Your task to perform on an android device: open app "Nova Launcher" Image 0: 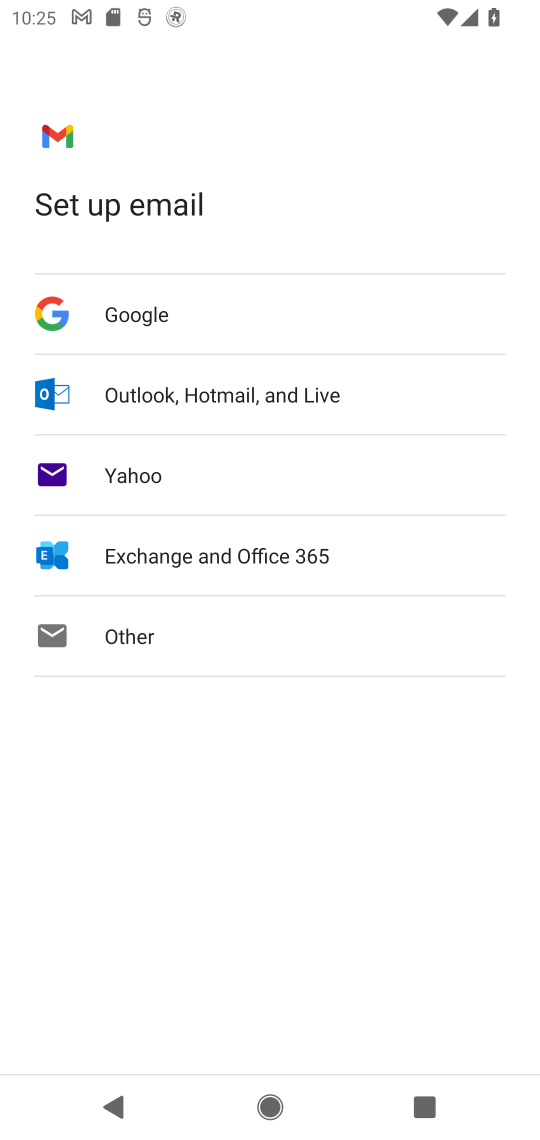
Step 0: press home button
Your task to perform on an android device: open app "Nova Launcher" Image 1: 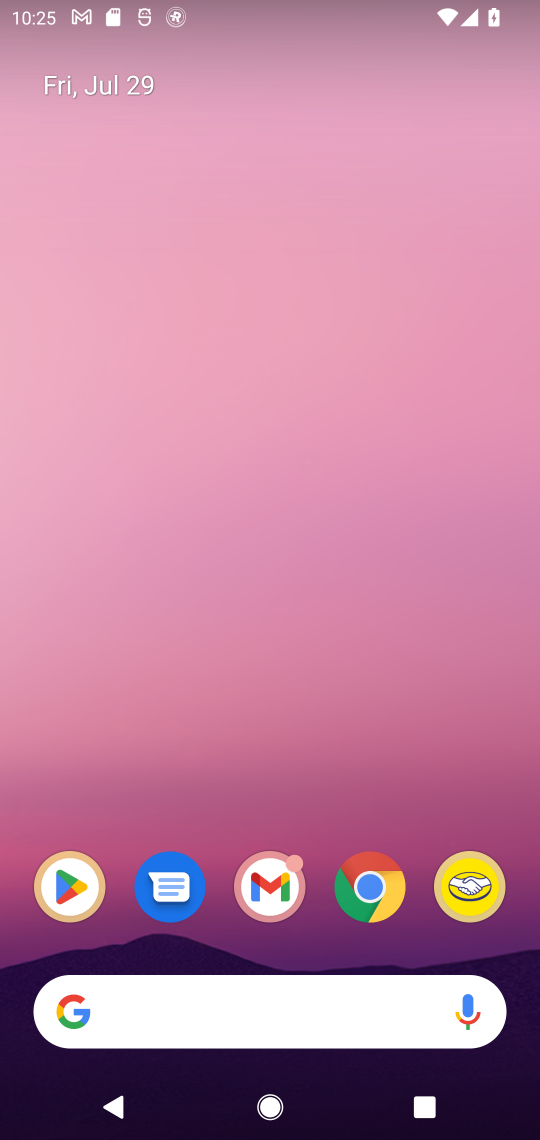
Step 1: click (72, 899)
Your task to perform on an android device: open app "Nova Launcher" Image 2: 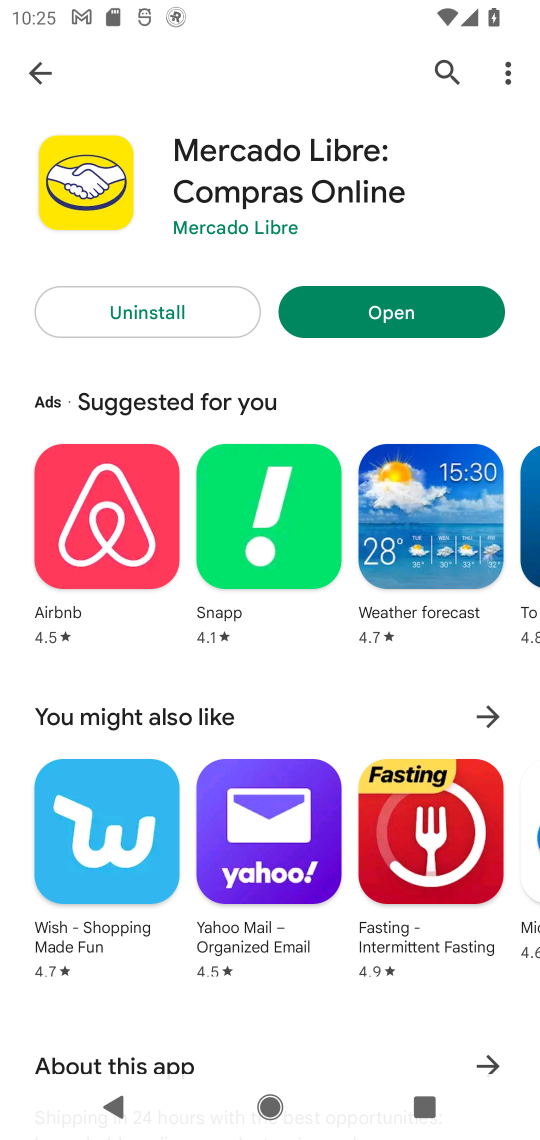
Step 2: click (444, 83)
Your task to perform on an android device: open app "Nova Launcher" Image 3: 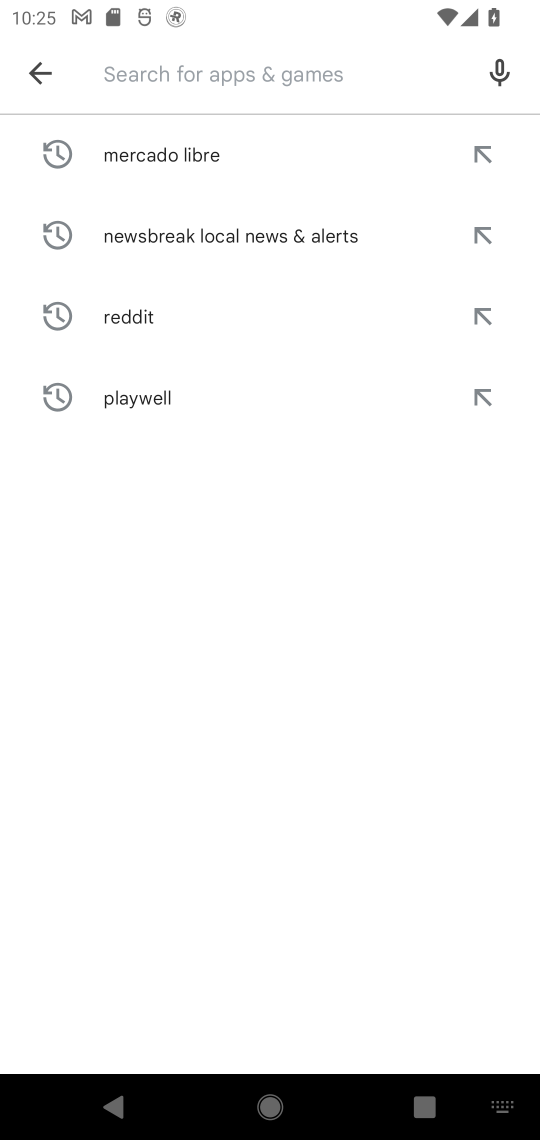
Step 3: type "nova launcher"
Your task to perform on an android device: open app "Nova Launcher" Image 4: 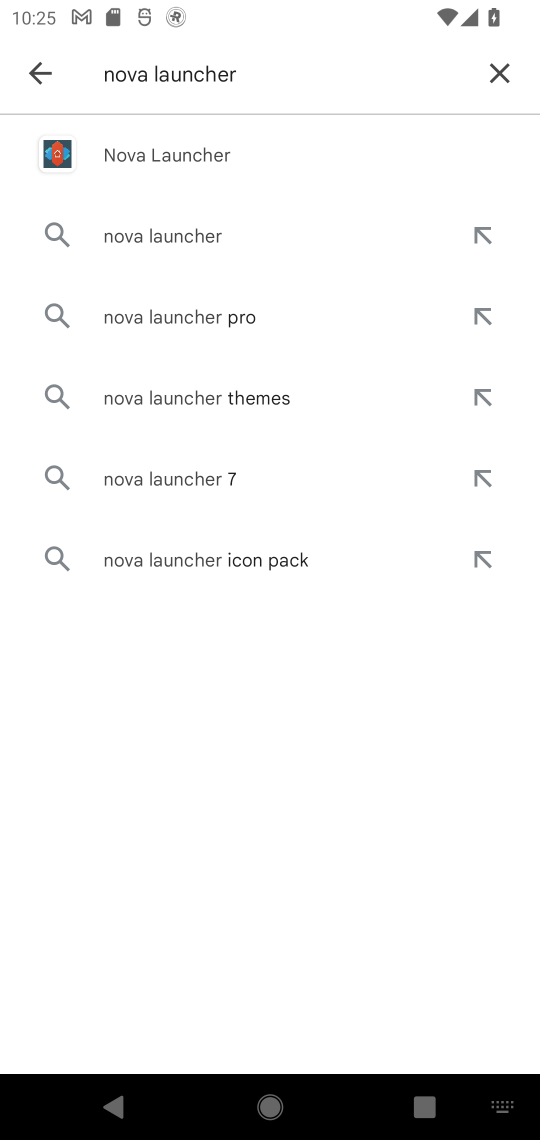
Step 4: click (362, 147)
Your task to perform on an android device: open app "Nova Launcher" Image 5: 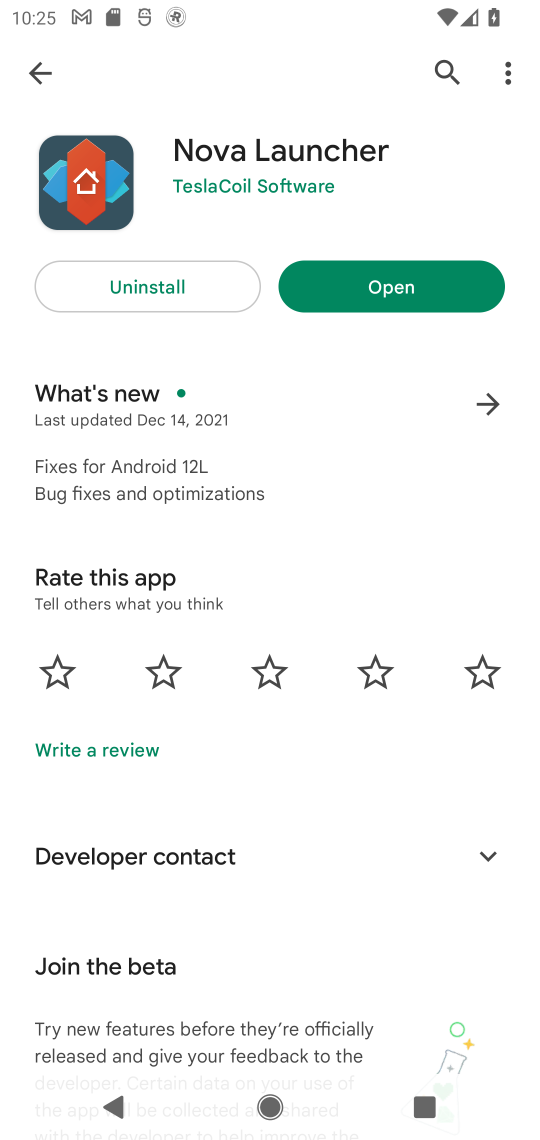
Step 5: click (350, 274)
Your task to perform on an android device: open app "Nova Launcher" Image 6: 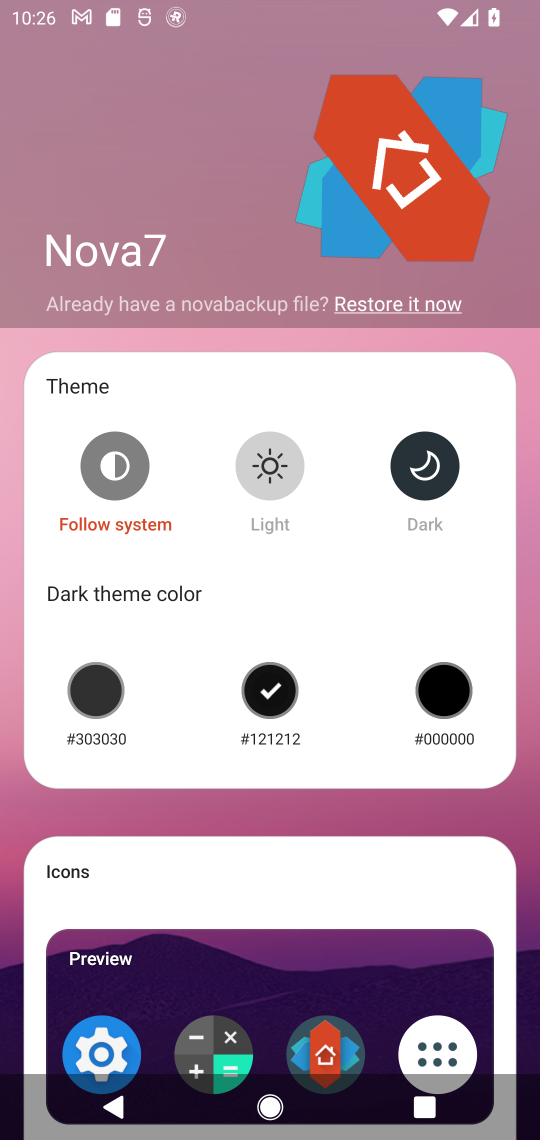
Step 6: task complete